Your task to perform on an android device: uninstall "Fetch Rewards" Image 0: 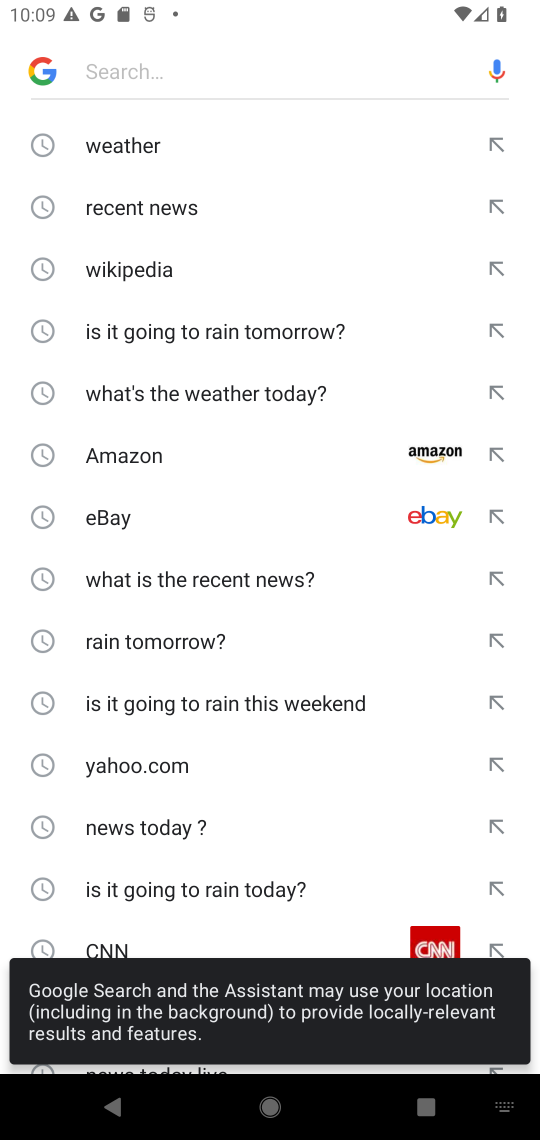
Step 0: press home button
Your task to perform on an android device: uninstall "Fetch Rewards" Image 1: 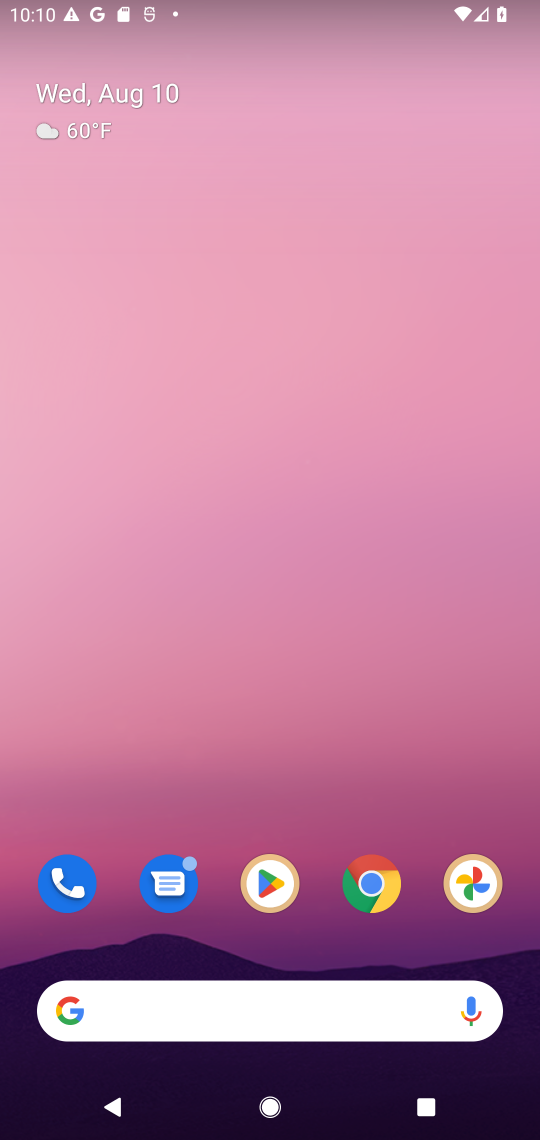
Step 1: drag from (432, 818) to (423, 141)
Your task to perform on an android device: uninstall "Fetch Rewards" Image 2: 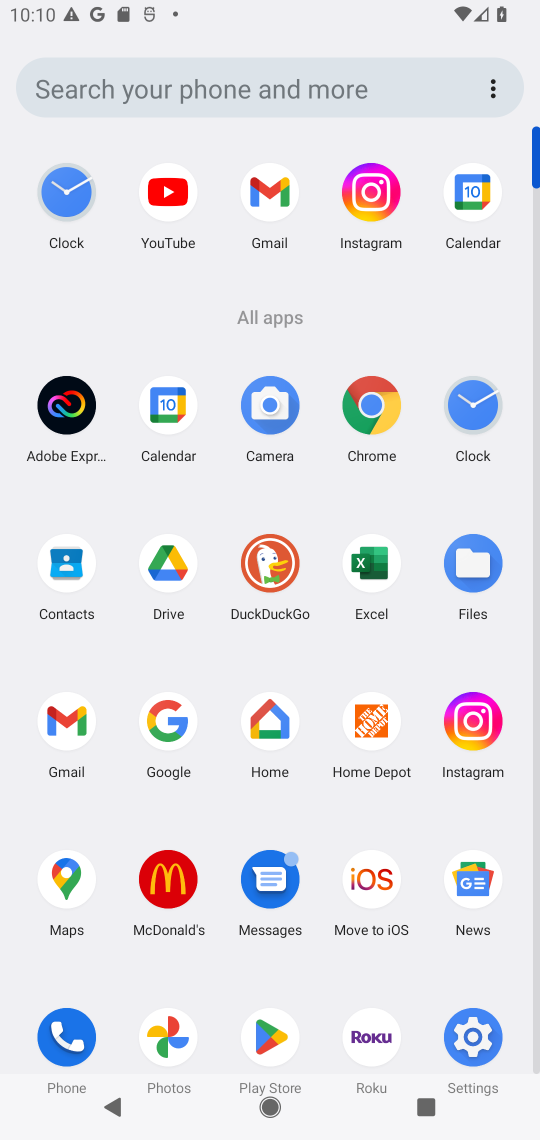
Step 2: click (257, 1030)
Your task to perform on an android device: uninstall "Fetch Rewards" Image 3: 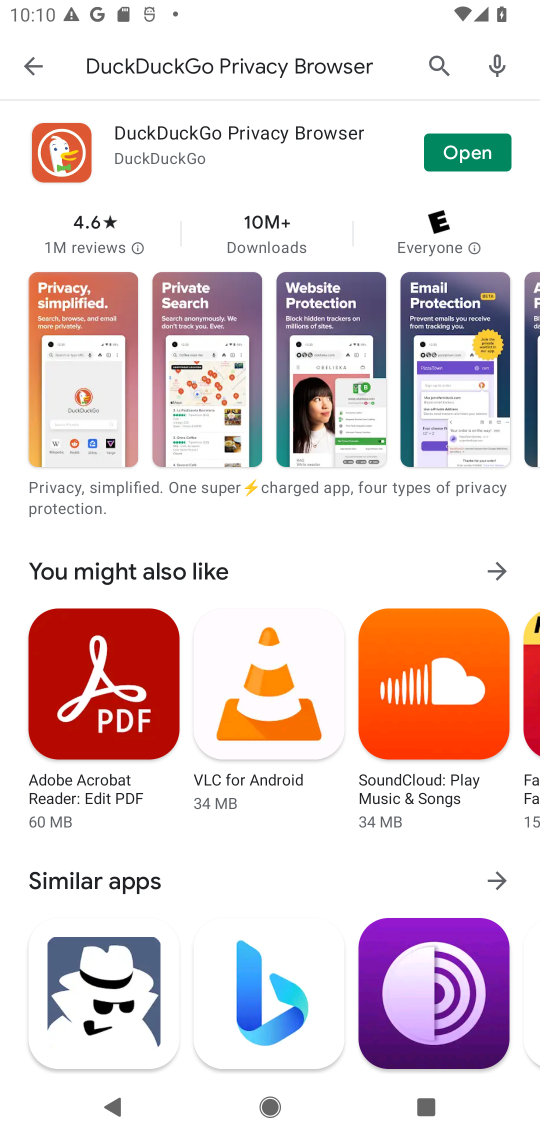
Step 3: click (438, 57)
Your task to perform on an android device: uninstall "Fetch Rewards" Image 4: 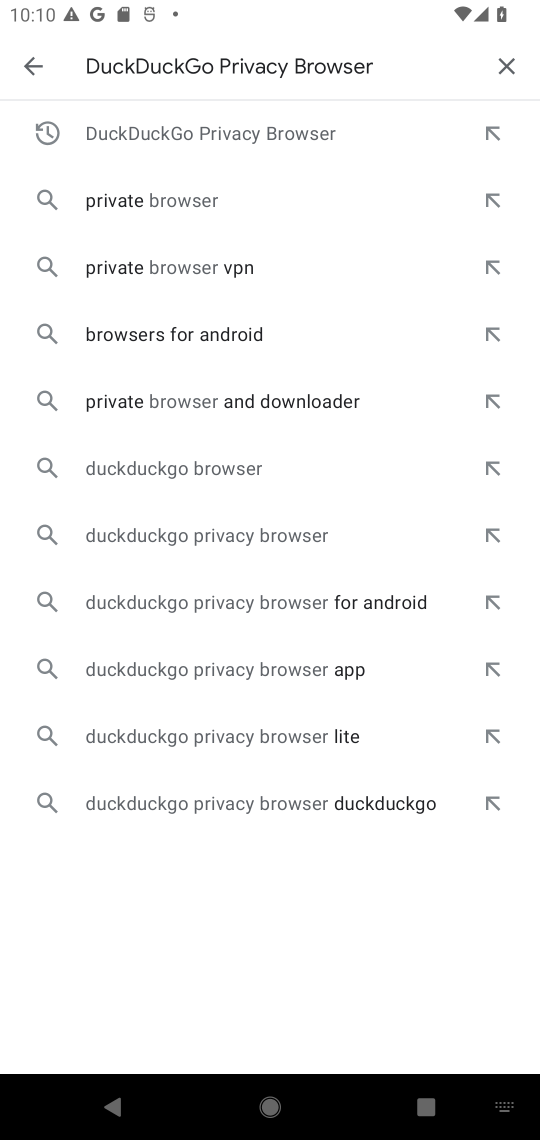
Step 4: click (502, 57)
Your task to perform on an android device: uninstall "Fetch Rewards" Image 5: 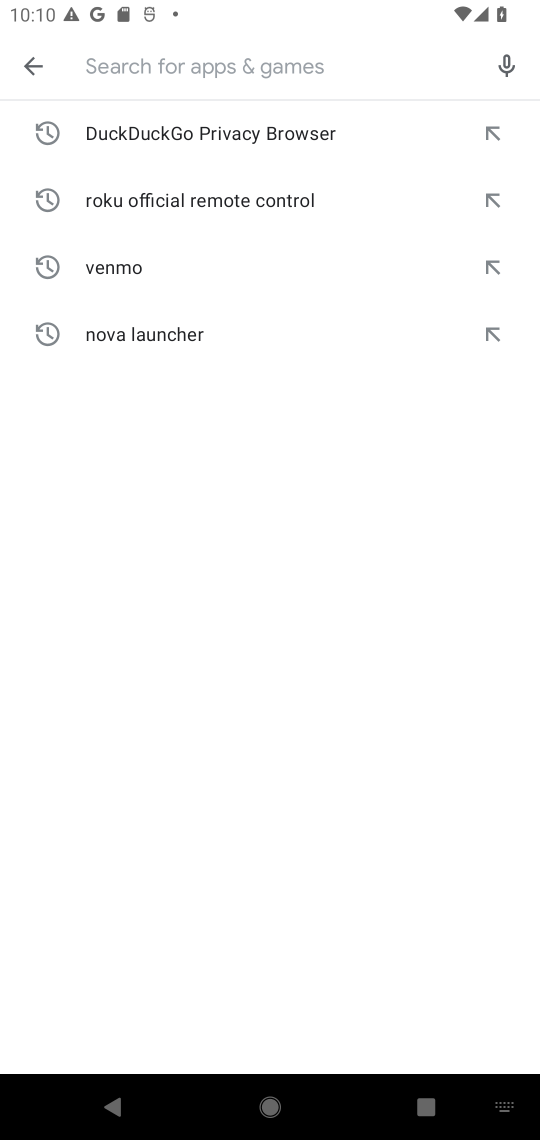
Step 5: type "Fetch Rewards"
Your task to perform on an android device: uninstall "Fetch Rewards" Image 6: 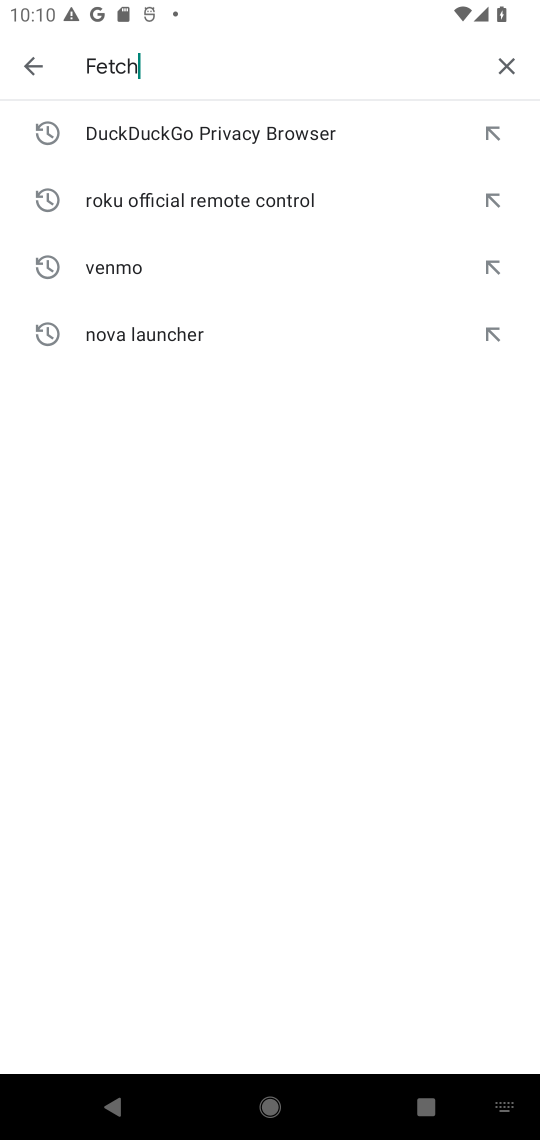
Step 6: press enter
Your task to perform on an android device: uninstall "Fetch Rewards" Image 7: 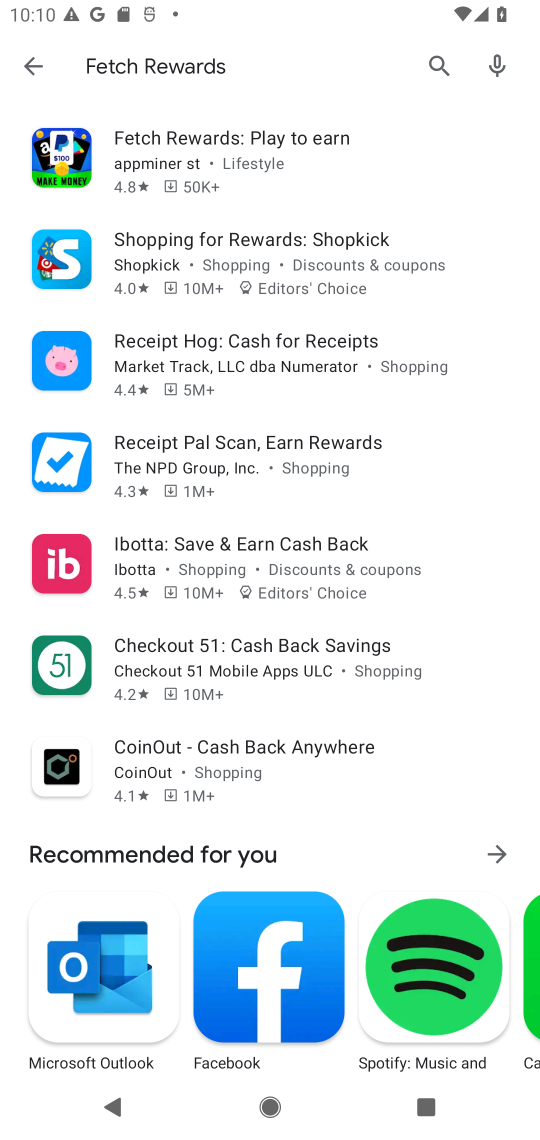
Step 7: task complete